Your task to perform on an android device: toggle sleep mode Image 0: 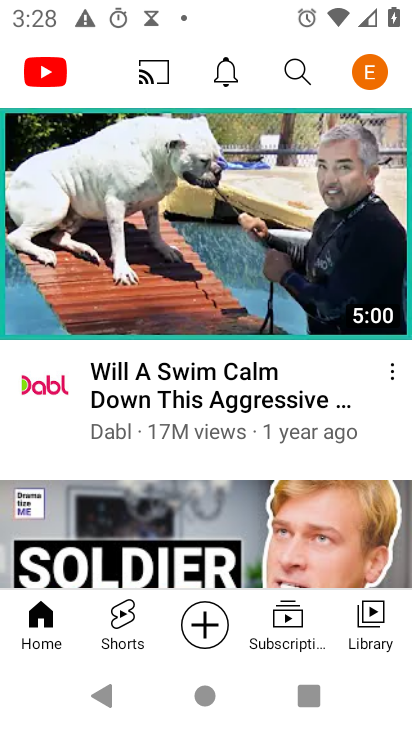
Step 0: press home button
Your task to perform on an android device: toggle sleep mode Image 1: 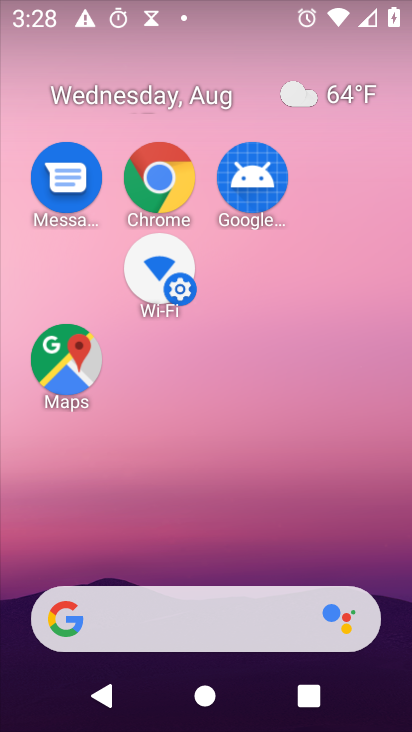
Step 1: drag from (272, 562) to (357, 5)
Your task to perform on an android device: toggle sleep mode Image 2: 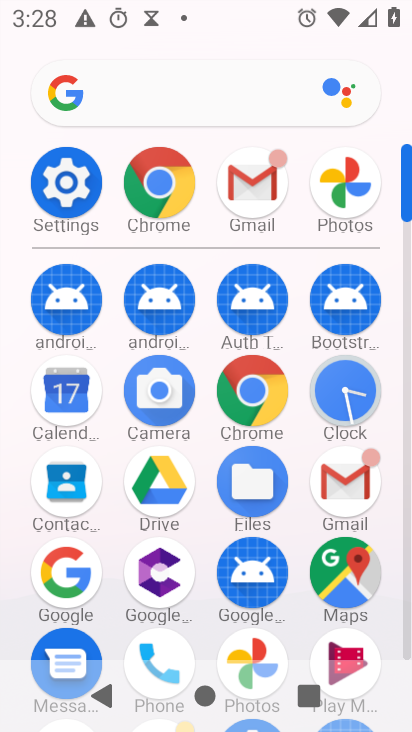
Step 2: click (68, 189)
Your task to perform on an android device: toggle sleep mode Image 3: 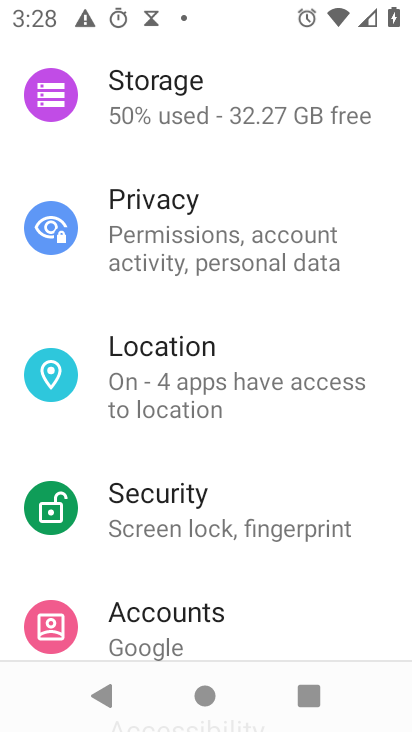
Step 3: drag from (319, 188) to (305, 546)
Your task to perform on an android device: toggle sleep mode Image 4: 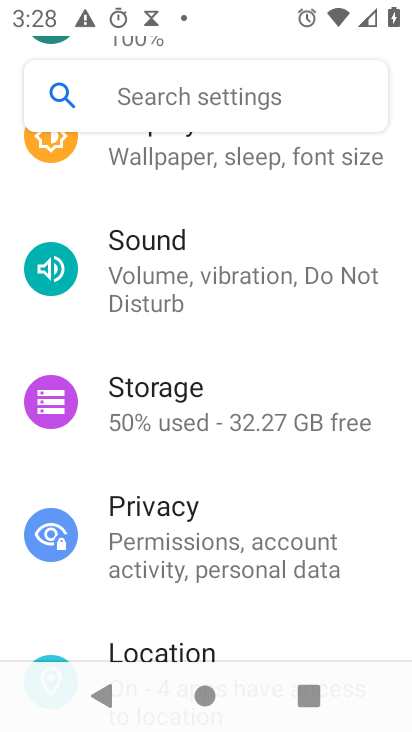
Step 4: drag from (295, 225) to (328, 624)
Your task to perform on an android device: toggle sleep mode Image 5: 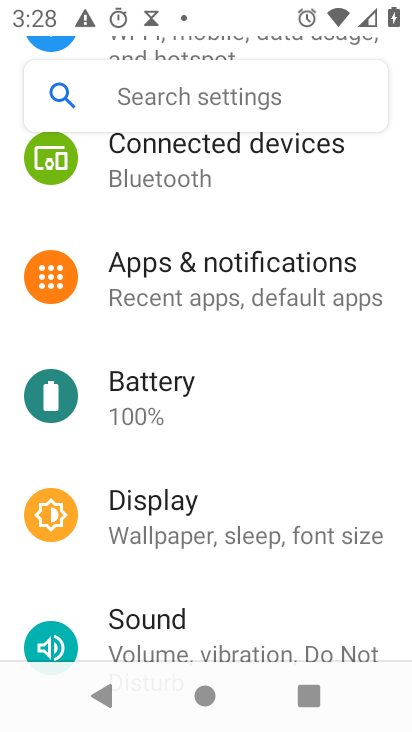
Step 5: click (129, 521)
Your task to perform on an android device: toggle sleep mode Image 6: 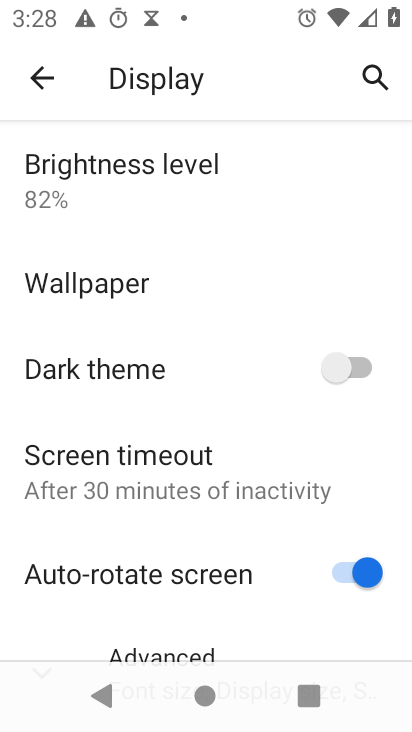
Step 6: task complete